Your task to perform on an android device: toggle improve location accuracy Image 0: 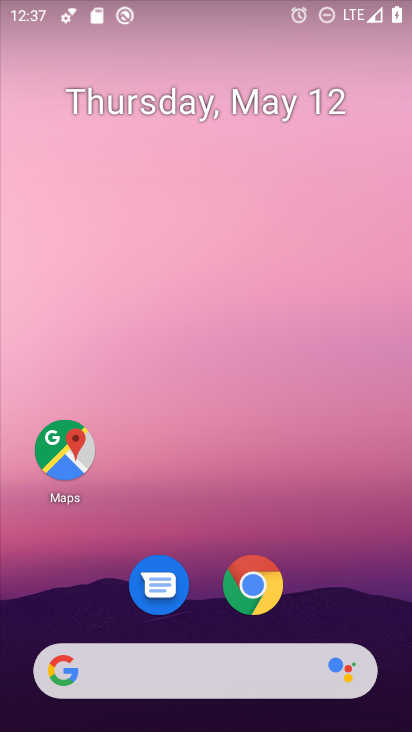
Step 0: drag from (328, 467) to (322, 9)
Your task to perform on an android device: toggle improve location accuracy Image 1: 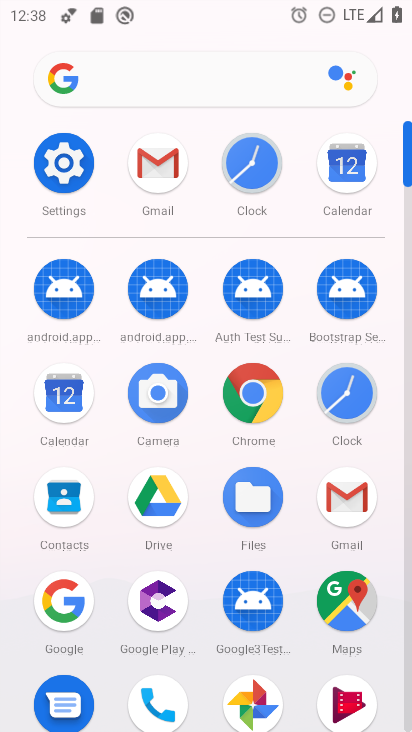
Step 1: click (83, 153)
Your task to perform on an android device: toggle improve location accuracy Image 2: 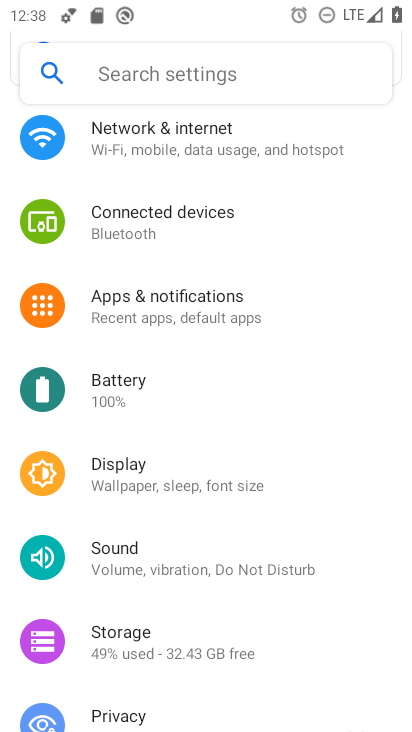
Step 2: drag from (249, 552) to (310, 193)
Your task to perform on an android device: toggle improve location accuracy Image 3: 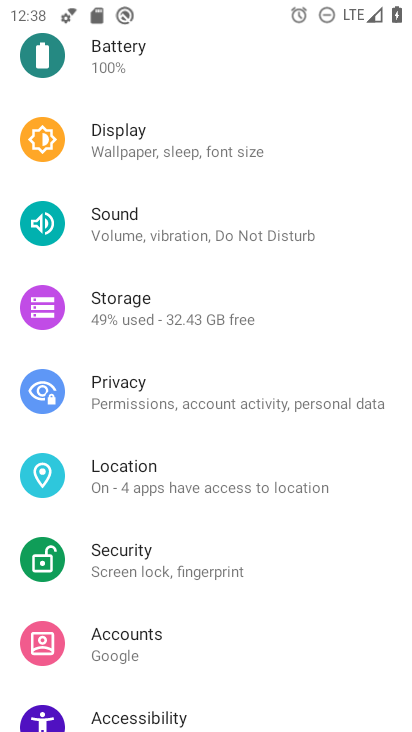
Step 3: click (213, 483)
Your task to perform on an android device: toggle improve location accuracy Image 4: 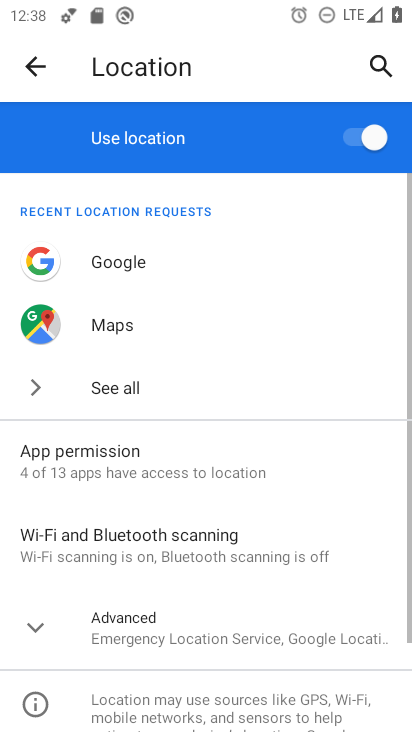
Step 4: drag from (185, 615) to (208, 249)
Your task to perform on an android device: toggle improve location accuracy Image 5: 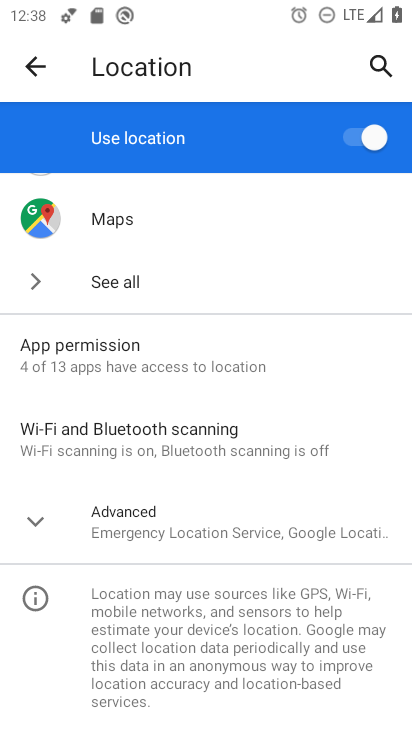
Step 5: click (175, 353)
Your task to perform on an android device: toggle improve location accuracy Image 6: 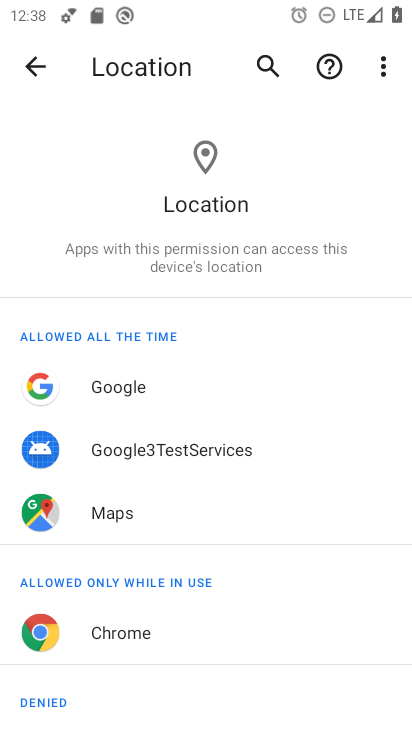
Step 6: drag from (219, 651) to (267, 95)
Your task to perform on an android device: toggle improve location accuracy Image 7: 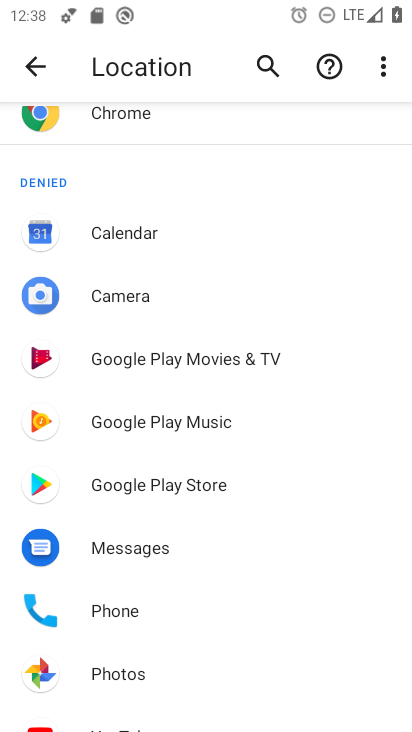
Step 7: drag from (232, 569) to (249, 167)
Your task to perform on an android device: toggle improve location accuracy Image 8: 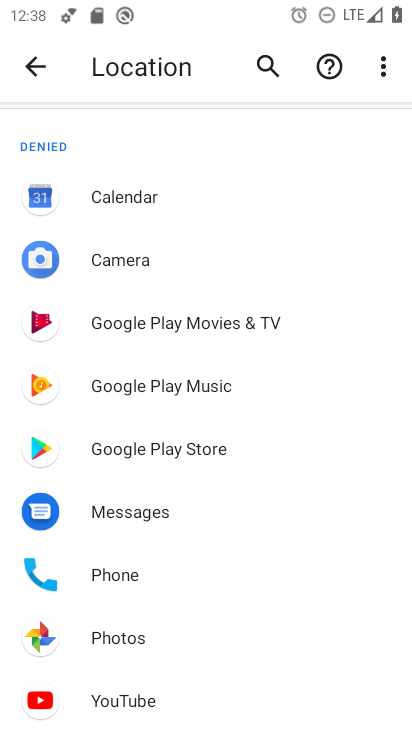
Step 8: click (36, 64)
Your task to perform on an android device: toggle improve location accuracy Image 9: 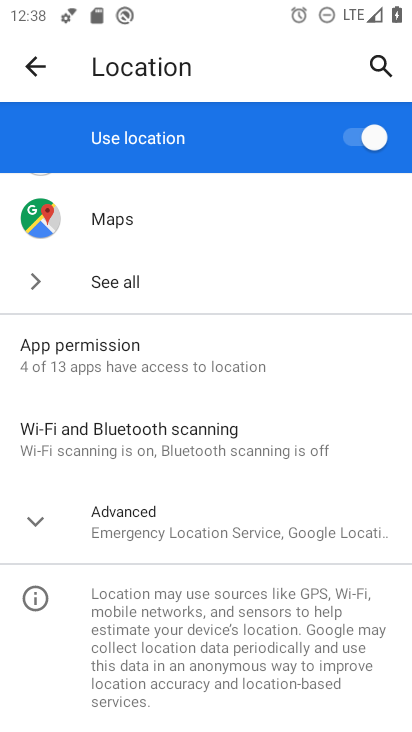
Step 9: click (35, 514)
Your task to perform on an android device: toggle improve location accuracy Image 10: 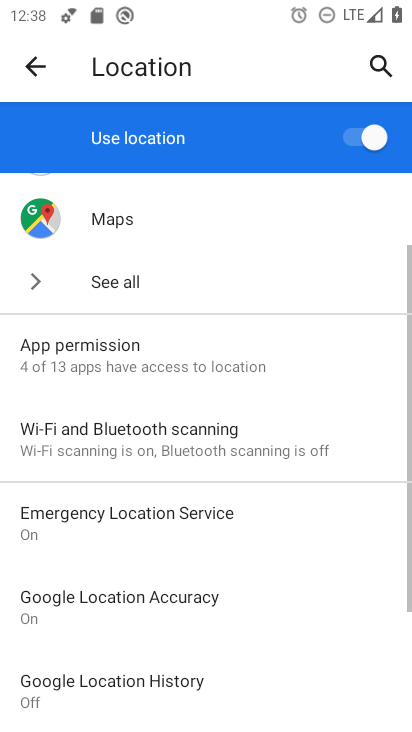
Step 10: drag from (280, 642) to (311, 344)
Your task to perform on an android device: toggle improve location accuracy Image 11: 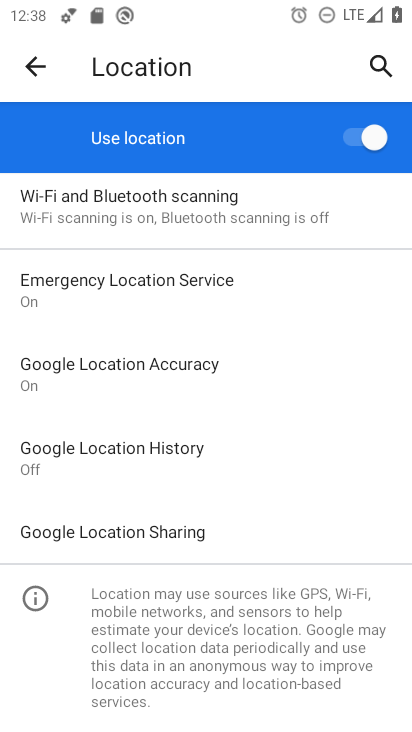
Step 11: click (202, 370)
Your task to perform on an android device: toggle improve location accuracy Image 12: 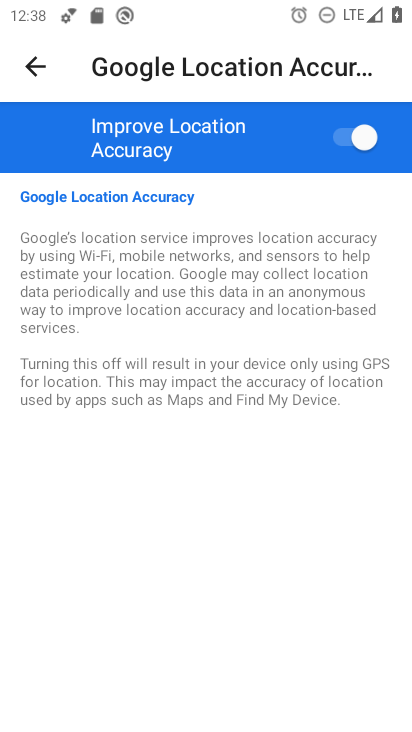
Step 12: click (338, 137)
Your task to perform on an android device: toggle improve location accuracy Image 13: 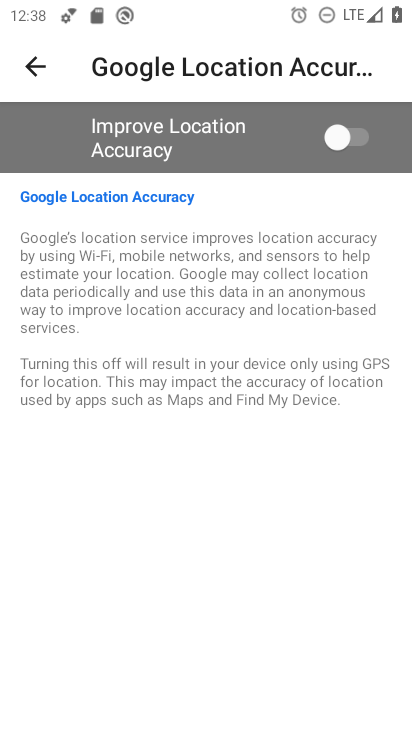
Step 13: task complete